Your task to perform on an android device: Show me productivity apps on the Play Store Image 0: 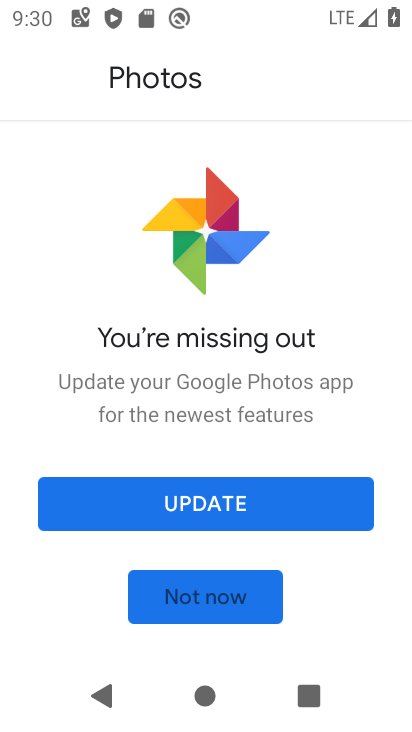
Step 0: press home button
Your task to perform on an android device: Show me productivity apps on the Play Store Image 1: 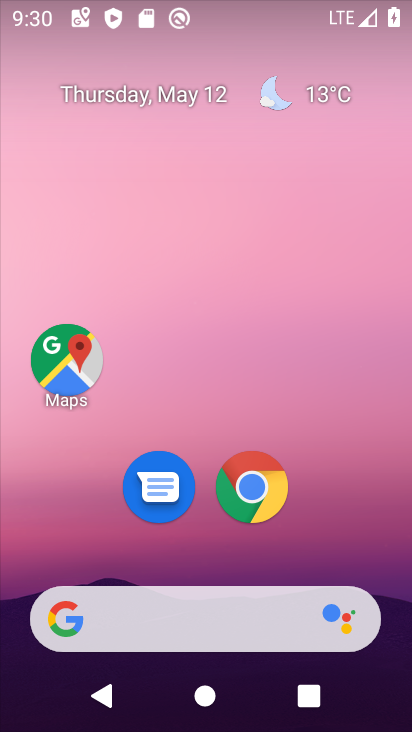
Step 1: drag from (391, 574) to (348, 27)
Your task to perform on an android device: Show me productivity apps on the Play Store Image 2: 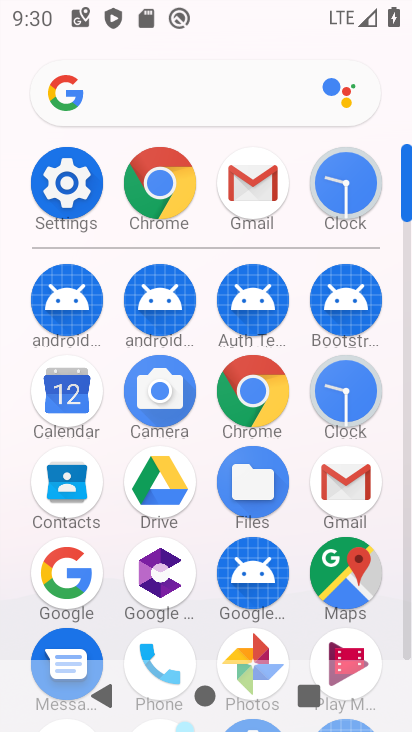
Step 2: drag from (406, 500) to (405, 459)
Your task to perform on an android device: Show me productivity apps on the Play Store Image 3: 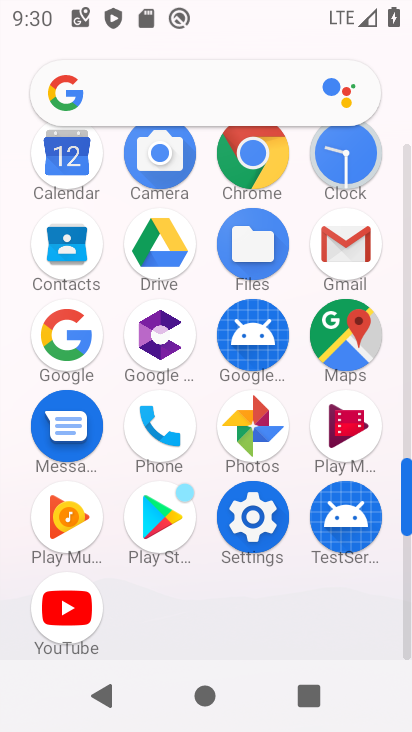
Step 3: click (164, 516)
Your task to perform on an android device: Show me productivity apps on the Play Store Image 4: 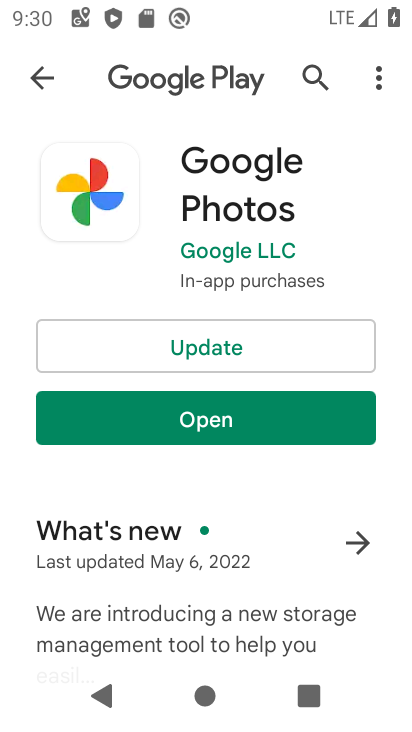
Step 4: click (43, 79)
Your task to perform on an android device: Show me productivity apps on the Play Store Image 5: 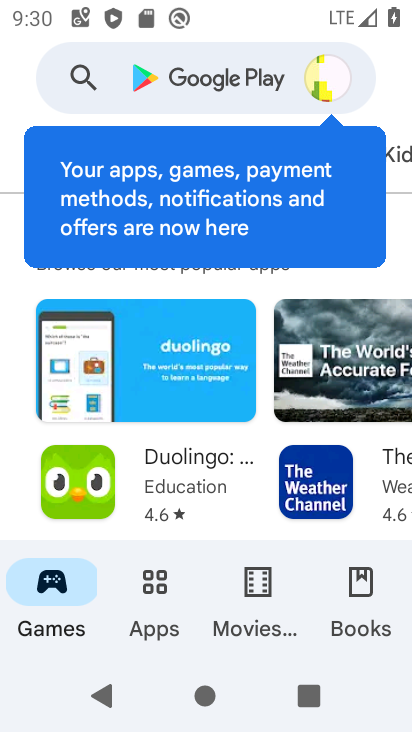
Step 5: click (149, 604)
Your task to perform on an android device: Show me productivity apps on the Play Store Image 6: 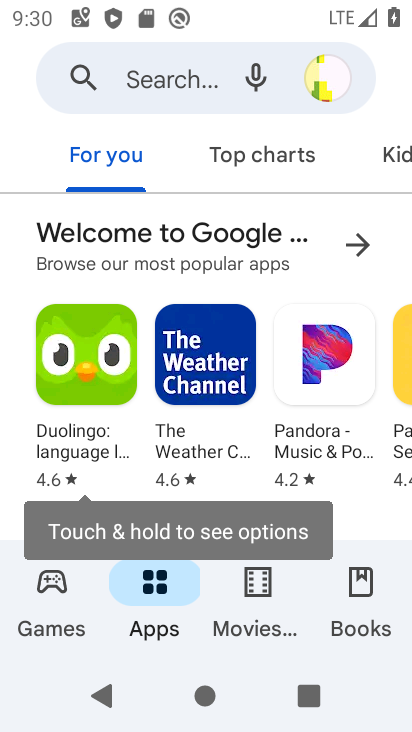
Step 6: drag from (326, 164) to (7, 166)
Your task to perform on an android device: Show me productivity apps on the Play Store Image 7: 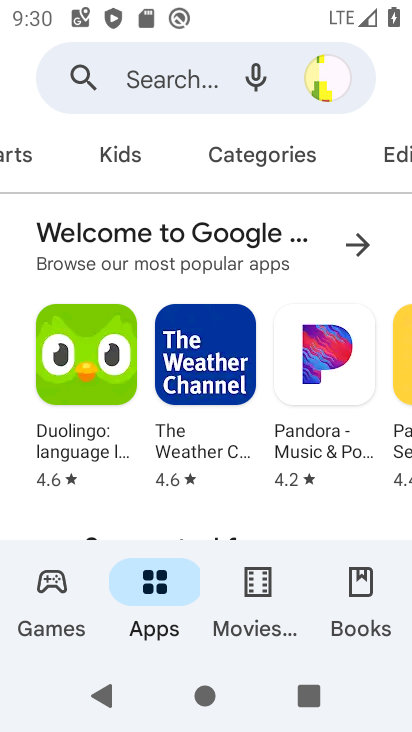
Step 7: click (263, 169)
Your task to perform on an android device: Show me productivity apps on the Play Store Image 8: 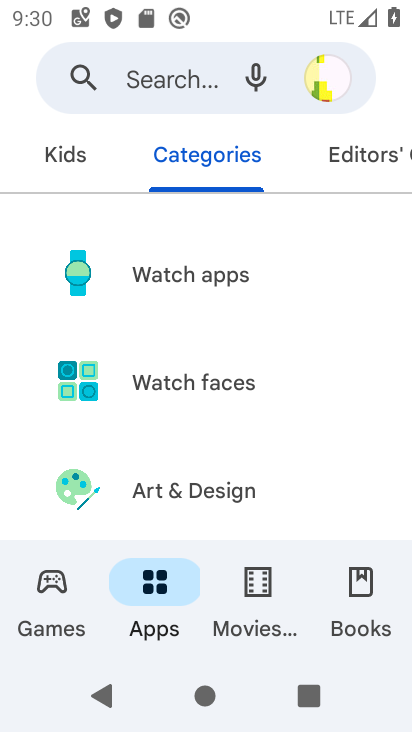
Step 8: drag from (276, 471) to (281, 37)
Your task to perform on an android device: Show me productivity apps on the Play Store Image 9: 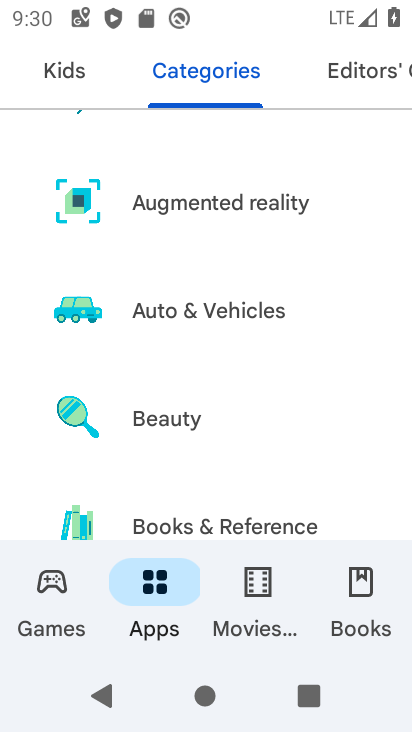
Step 9: drag from (235, 406) to (253, 43)
Your task to perform on an android device: Show me productivity apps on the Play Store Image 10: 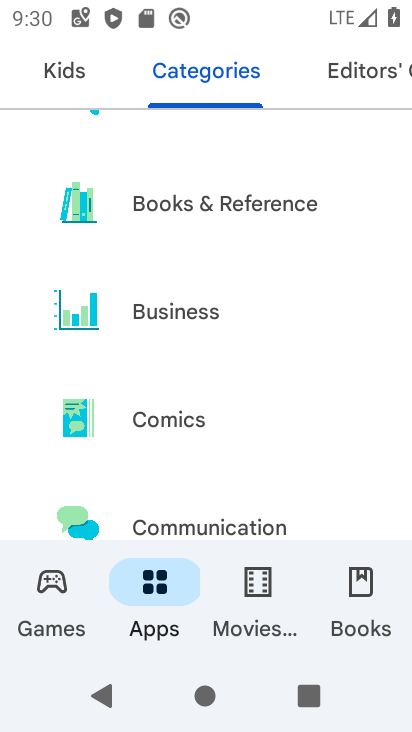
Step 10: drag from (205, 436) to (248, 17)
Your task to perform on an android device: Show me productivity apps on the Play Store Image 11: 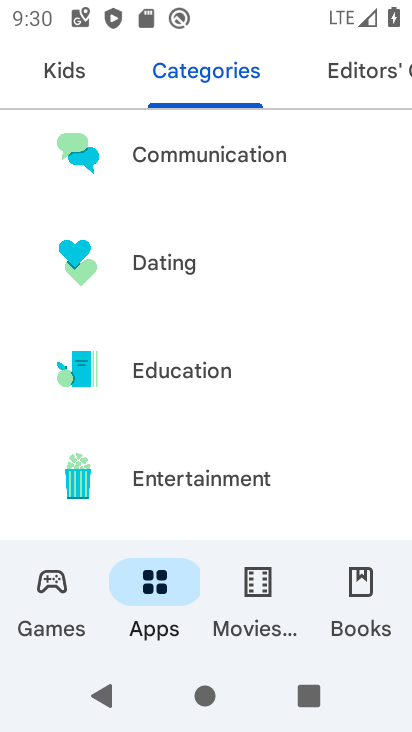
Step 11: drag from (201, 390) to (208, 68)
Your task to perform on an android device: Show me productivity apps on the Play Store Image 12: 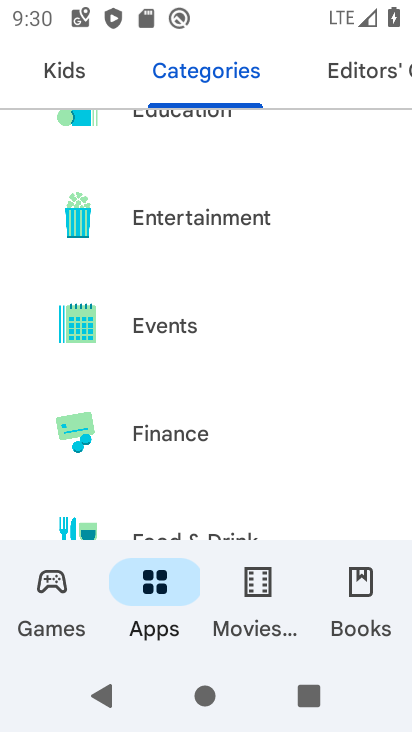
Step 12: drag from (203, 440) to (195, 121)
Your task to perform on an android device: Show me productivity apps on the Play Store Image 13: 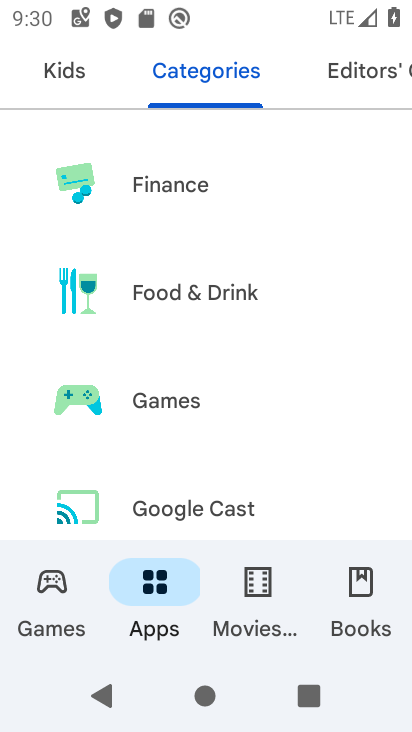
Step 13: drag from (169, 419) to (171, 116)
Your task to perform on an android device: Show me productivity apps on the Play Store Image 14: 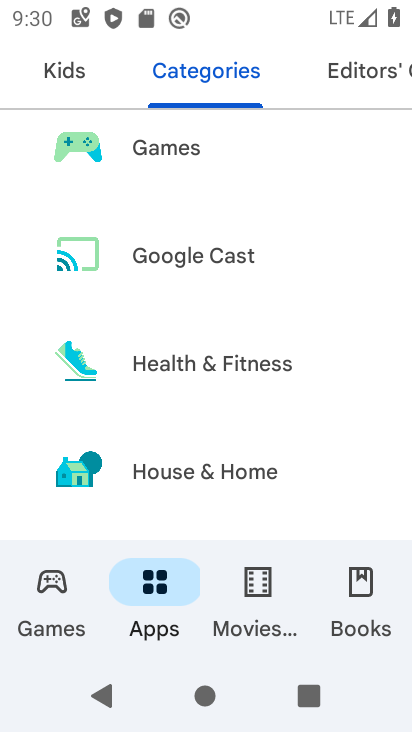
Step 14: drag from (159, 412) to (171, 130)
Your task to perform on an android device: Show me productivity apps on the Play Store Image 15: 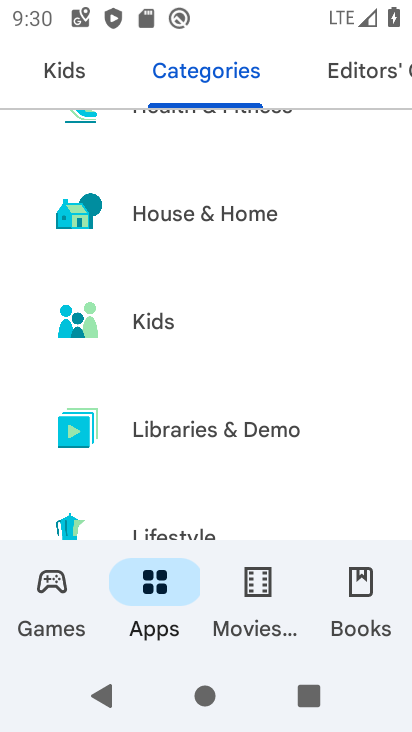
Step 15: drag from (157, 406) to (176, 179)
Your task to perform on an android device: Show me productivity apps on the Play Store Image 16: 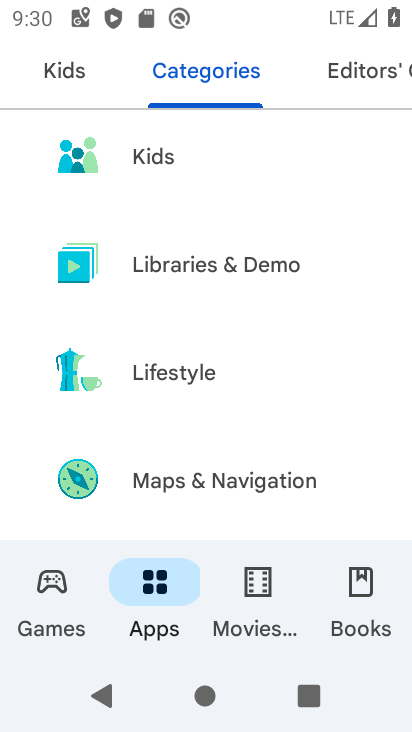
Step 16: drag from (192, 393) to (198, 124)
Your task to perform on an android device: Show me productivity apps on the Play Store Image 17: 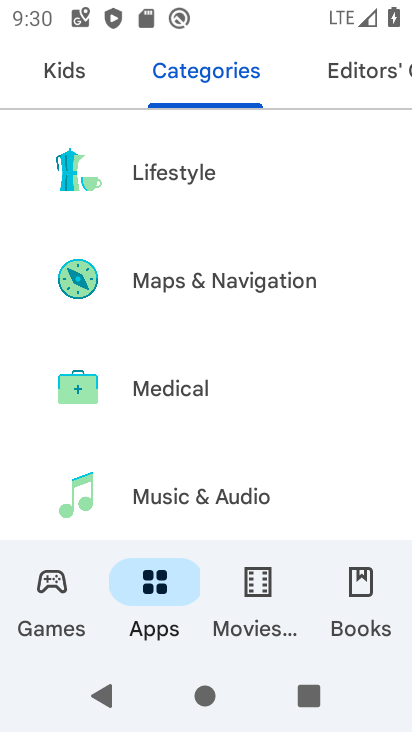
Step 17: drag from (174, 400) to (187, 113)
Your task to perform on an android device: Show me productivity apps on the Play Store Image 18: 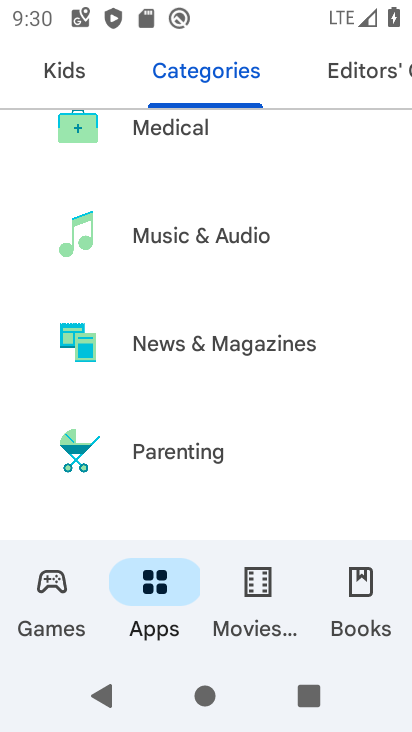
Step 18: drag from (180, 393) to (185, 110)
Your task to perform on an android device: Show me productivity apps on the Play Store Image 19: 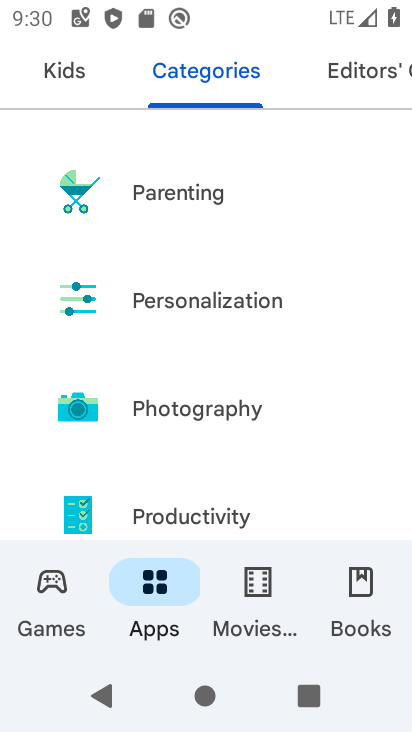
Step 19: drag from (183, 456) to (206, 232)
Your task to perform on an android device: Show me productivity apps on the Play Store Image 20: 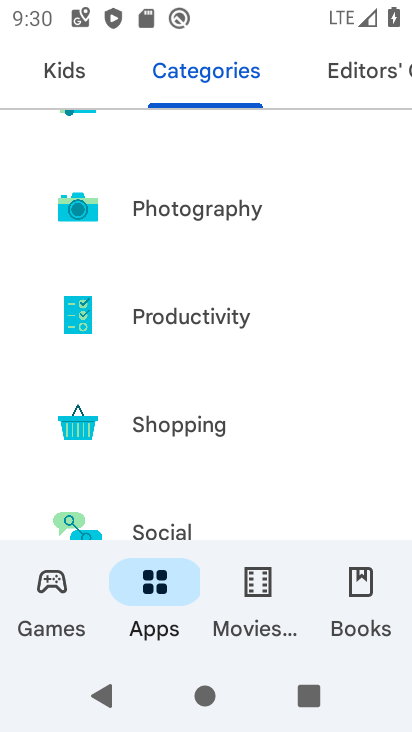
Step 20: click (167, 313)
Your task to perform on an android device: Show me productivity apps on the Play Store Image 21: 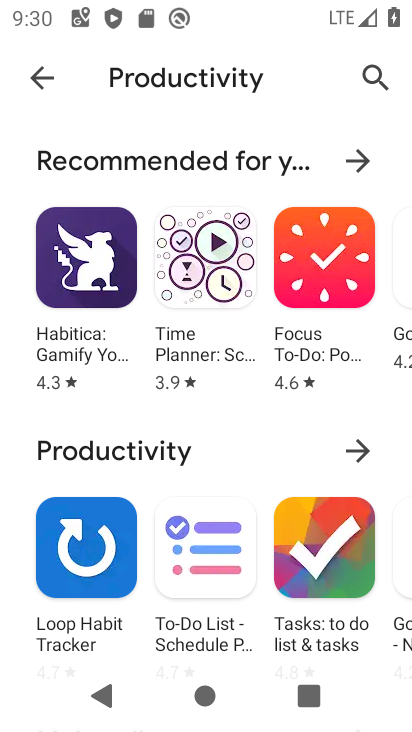
Step 21: task complete